Your task to perform on an android device: Play the last video I watched on Youtube Image 0: 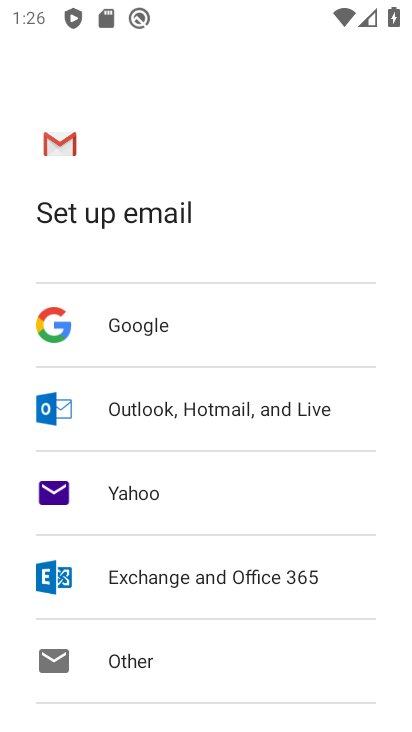
Step 0: press home button
Your task to perform on an android device: Play the last video I watched on Youtube Image 1: 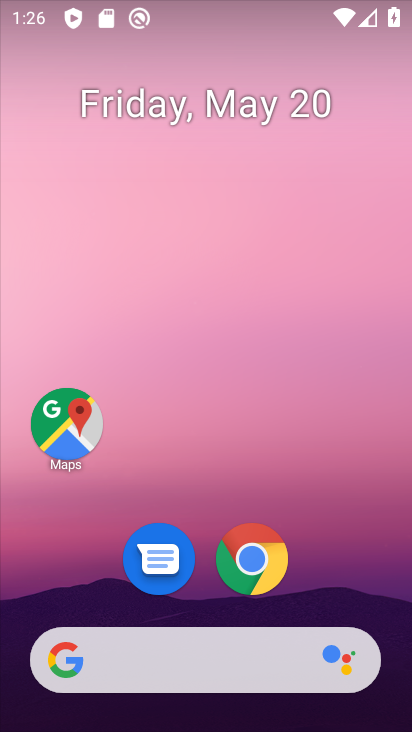
Step 1: drag from (364, 574) to (312, 52)
Your task to perform on an android device: Play the last video I watched on Youtube Image 2: 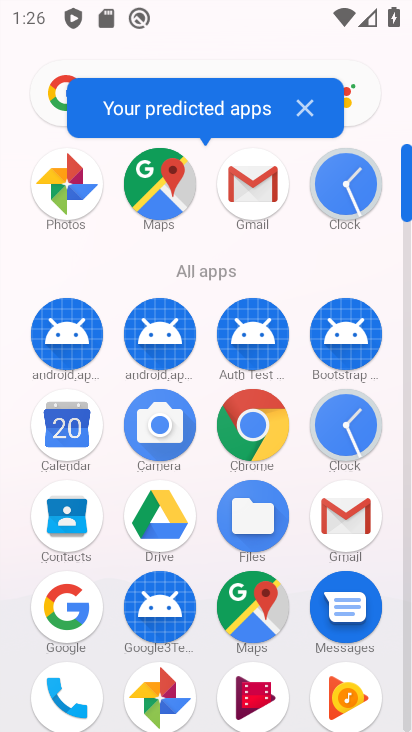
Step 2: drag from (293, 666) to (292, 216)
Your task to perform on an android device: Play the last video I watched on Youtube Image 3: 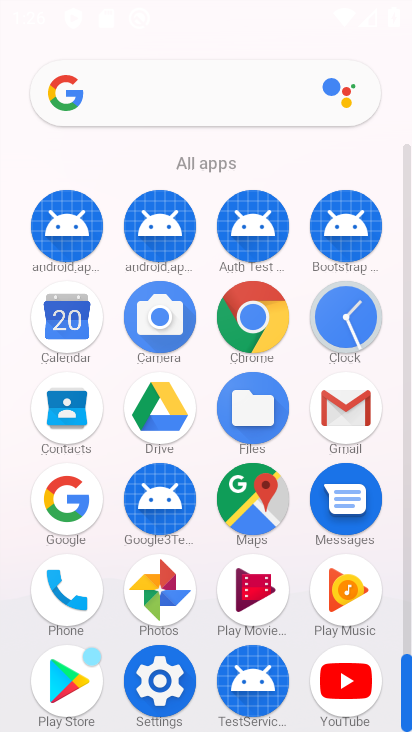
Step 3: click (346, 666)
Your task to perform on an android device: Play the last video I watched on Youtube Image 4: 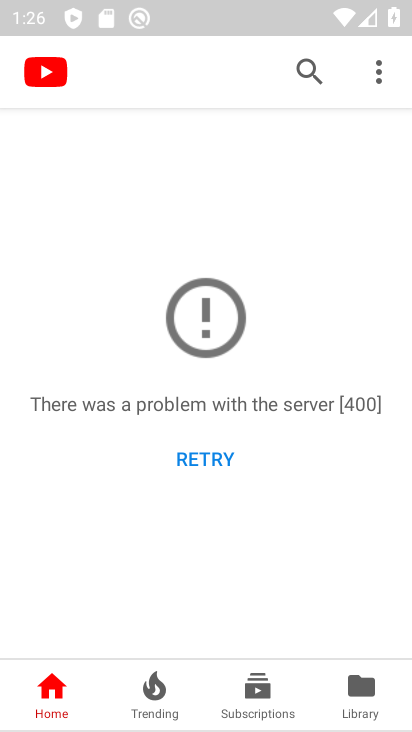
Step 4: click (341, 675)
Your task to perform on an android device: Play the last video I watched on Youtube Image 5: 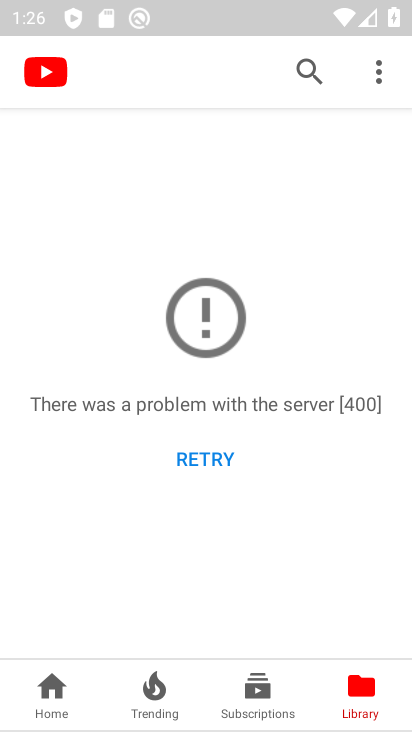
Step 5: click (193, 457)
Your task to perform on an android device: Play the last video I watched on Youtube Image 6: 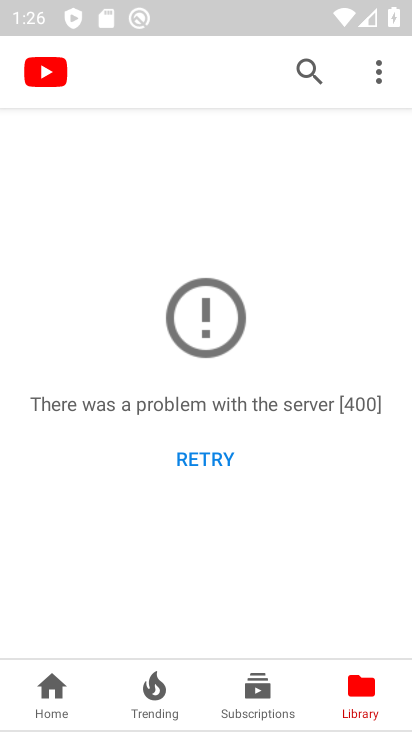
Step 6: click (193, 457)
Your task to perform on an android device: Play the last video I watched on Youtube Image 7: 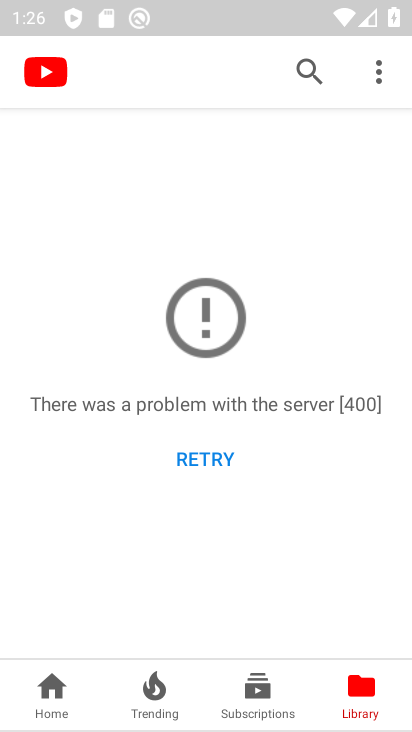
Step 7: click (193, 457)
Your task to perform on an android device: Play the last video I watched on Youtube Image 8: 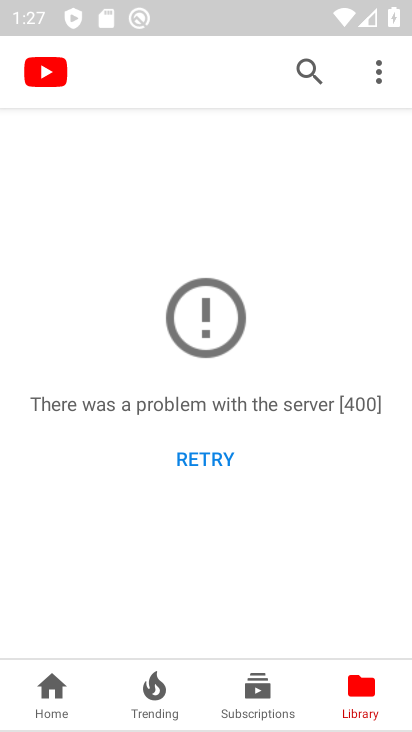
Step 8: click (195, 464)
Your task to perform on an android device: Play the last video I watched on Youtube Image 9: 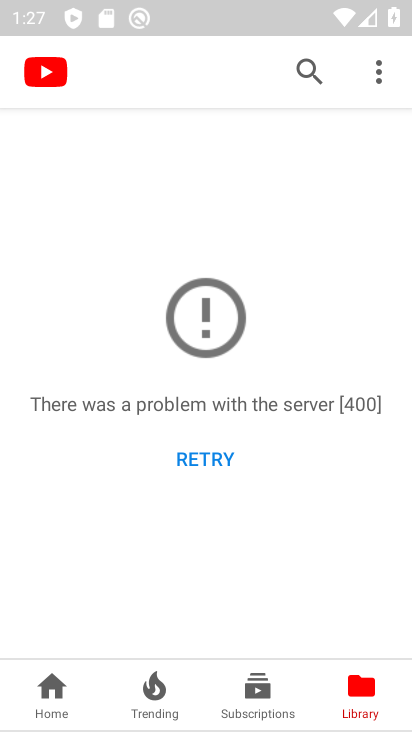
Step 9: task complete